Your task to perform on an android device: Show me popular videos on Youtube Image 0: 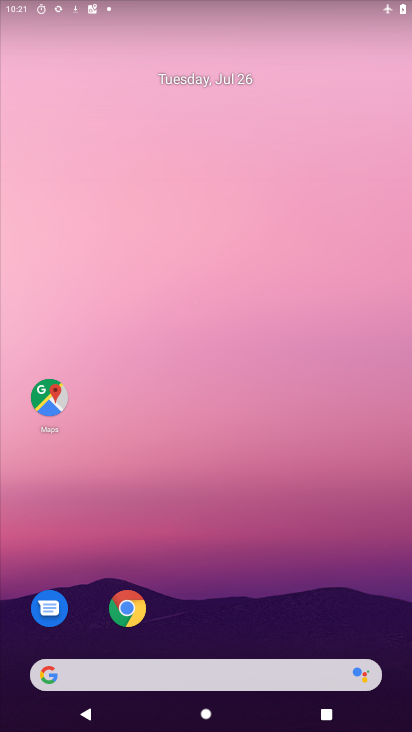
Step 0: drag from (239, 594) to (240, 82)
Your task to perform on an android device: Show me popular videos on Youtube Image 1: 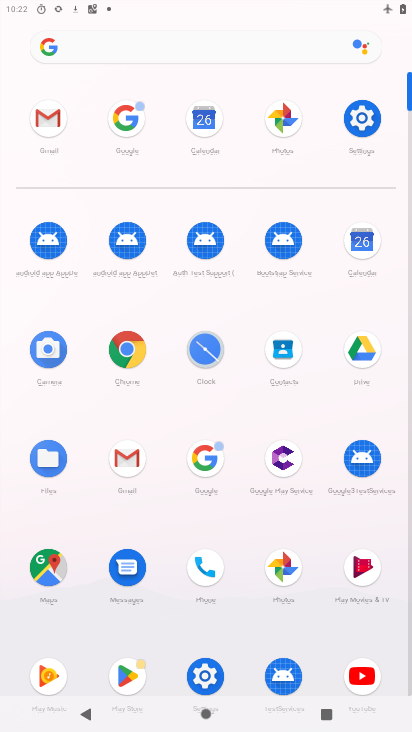
Step 1: click (357, 668)
Your task to perform on an android device: Show me popular videos on Youtube Image 2: 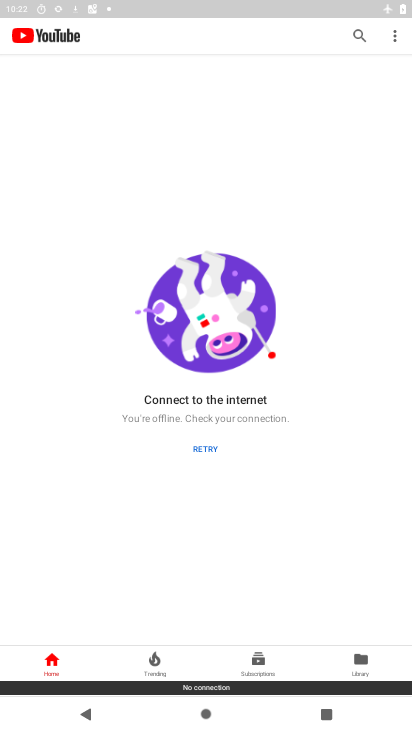
Step 2: click (353, 34)
Your task to perform on an android device: Show me popular videos on Youtube Image 3: 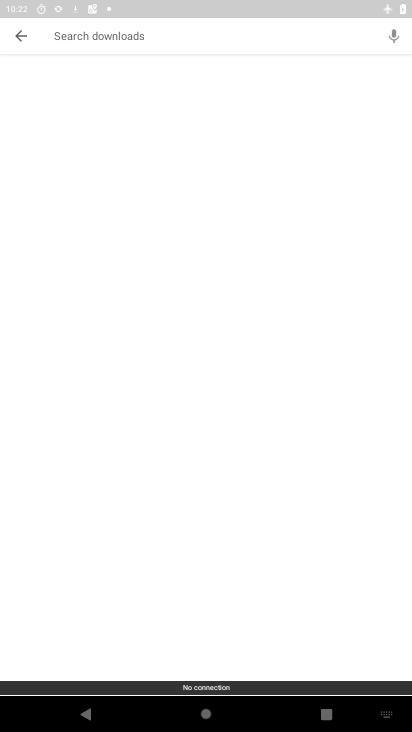
Step 3: type "popular videos"
Your task to perform on an android device: Show me popular videos on Youtube Image 4: 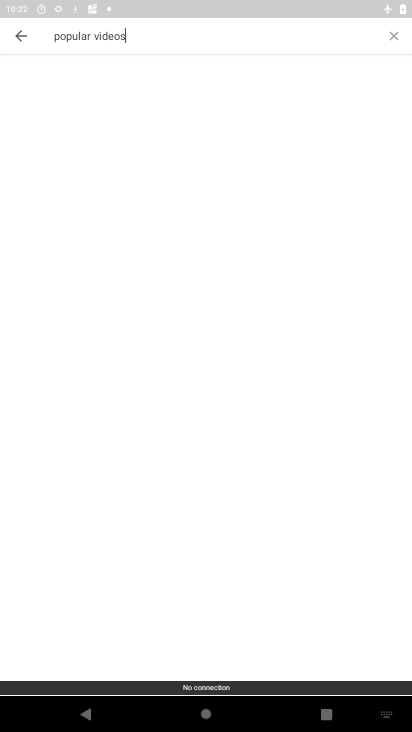
Step 4: type ""
Your task to perform on an android device: Show me popular videos on Youtube Image 5: 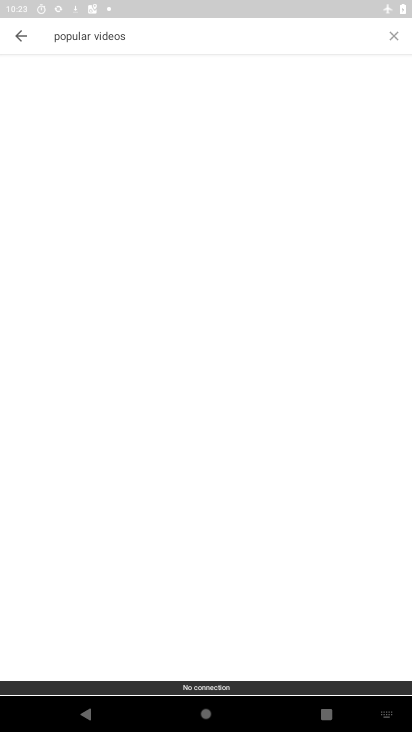
Step 5: task complete